Your task to perform on an android device: toggle airplane mode Image 0: 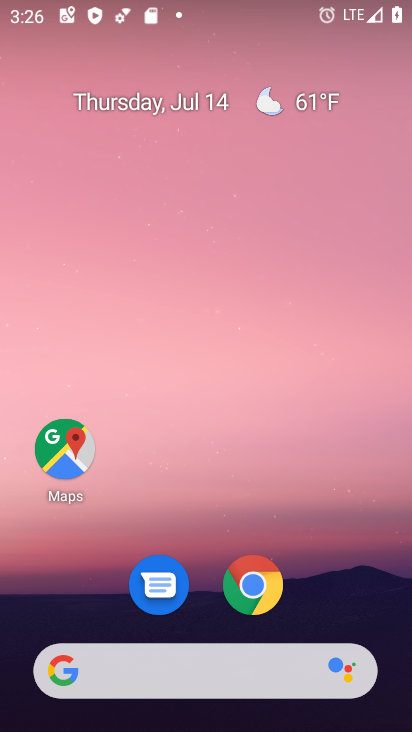
Step 0: drag from (330, 139) to (333, 15)
Your task to perform on an android device: toggle airplane mode Image 1: 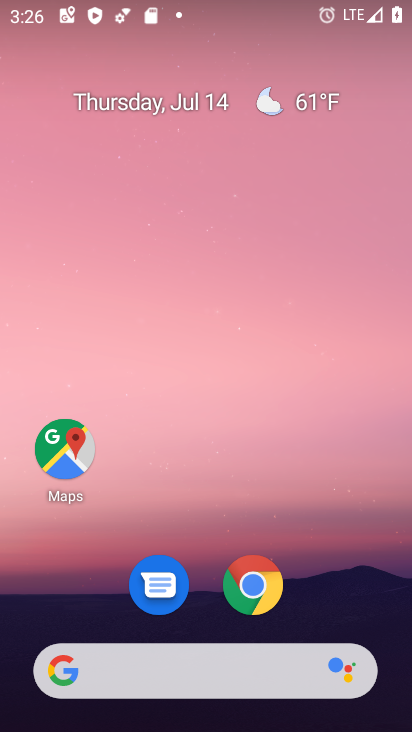
Step 1: drag from (311, 582) to (329, 54)
Your task to perform on an android device: toggle airplane mode Image 2: 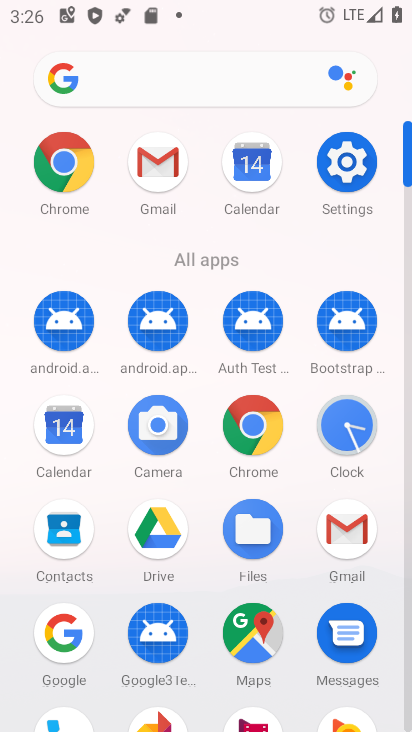
Step 2: click (354, 159)
Your task to perform on an android device: toggle airplane mode Image 3: 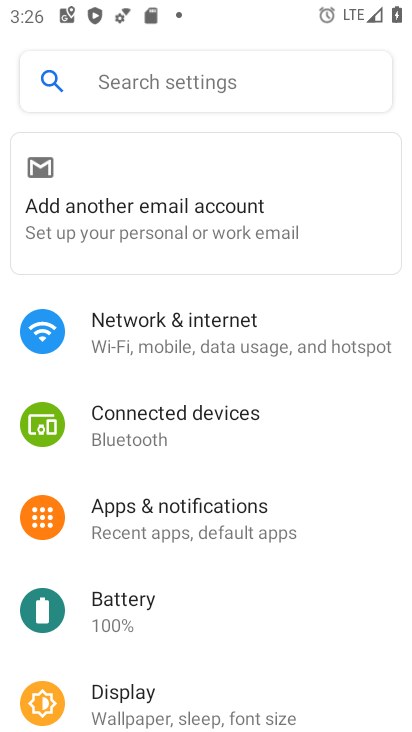
Step 3: click (231, 338)
Your task to perform on an android device: toggle airplane mode Image 4: 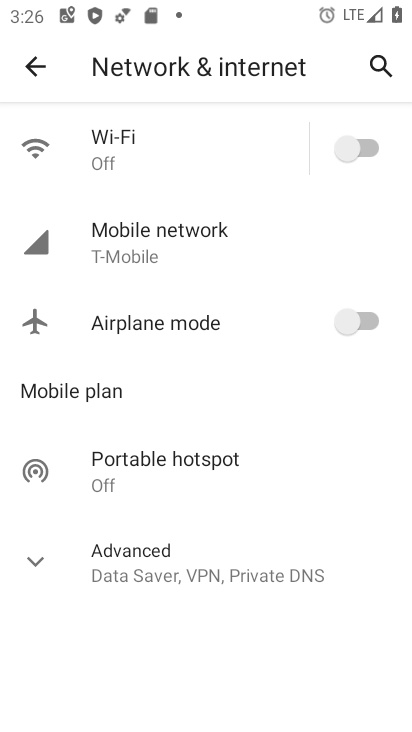
Step 4: click (363, 314)
Your task to perform on an android device: toggle airplane mode Image 5: 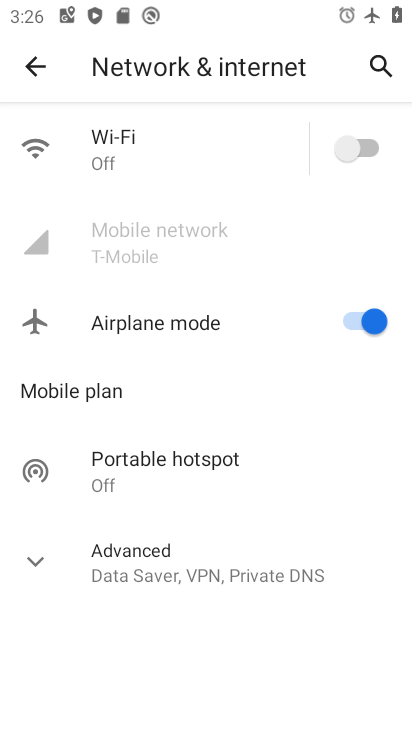
Step 5: task complete